Your task to perform on an android device: Go to location settings Image 0: 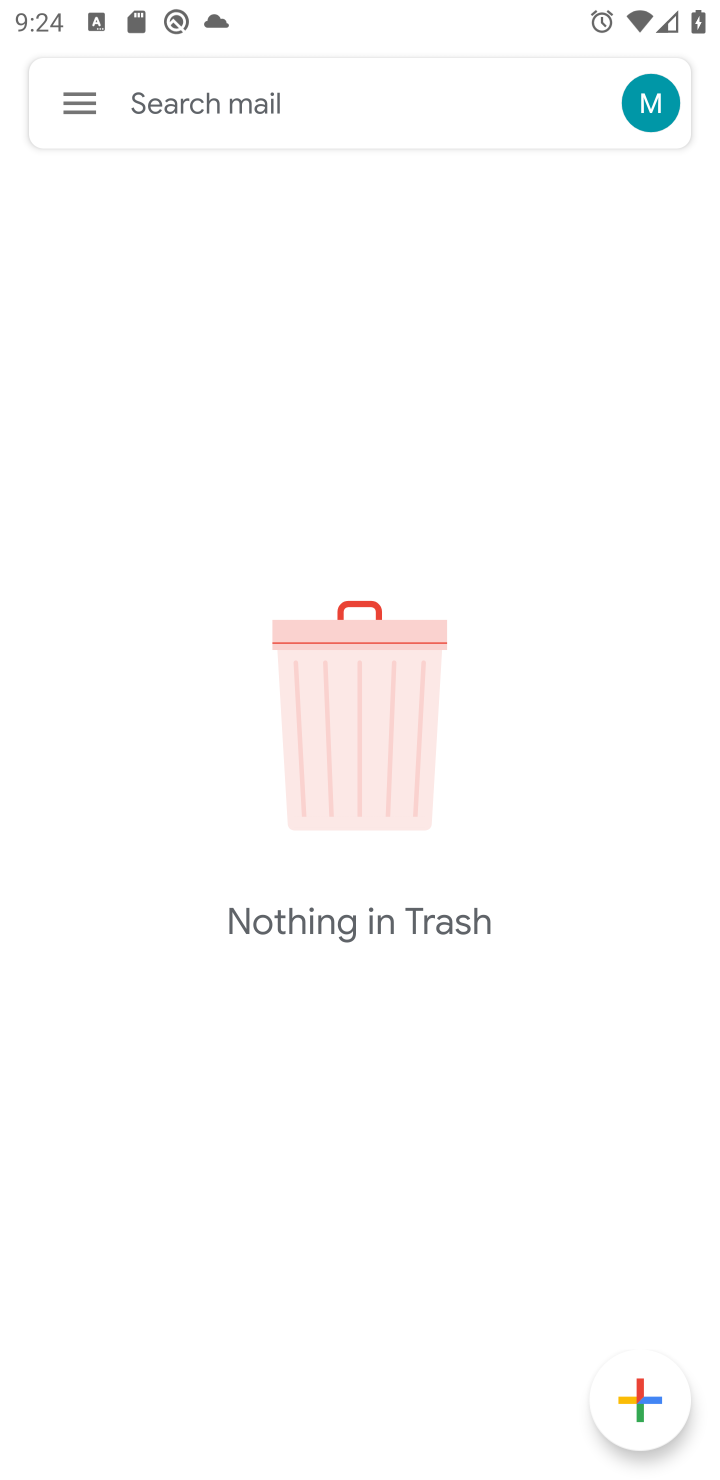
Step 0: press home button
Your task to perform on an android device: Go to location settings Image 1: 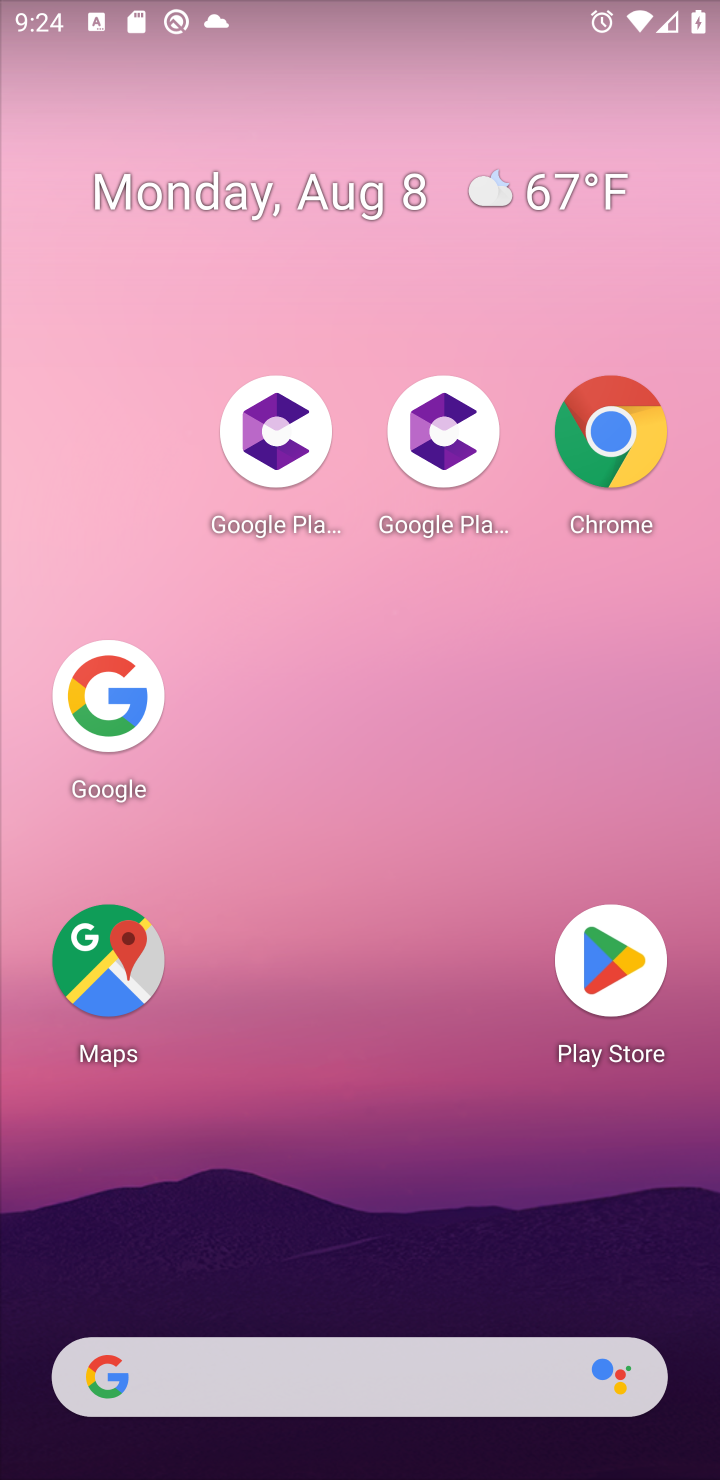
Step 1: drag from (311, 1062) to (285, 210)
Your task to perform on an android device: Go to location settings Image 2: 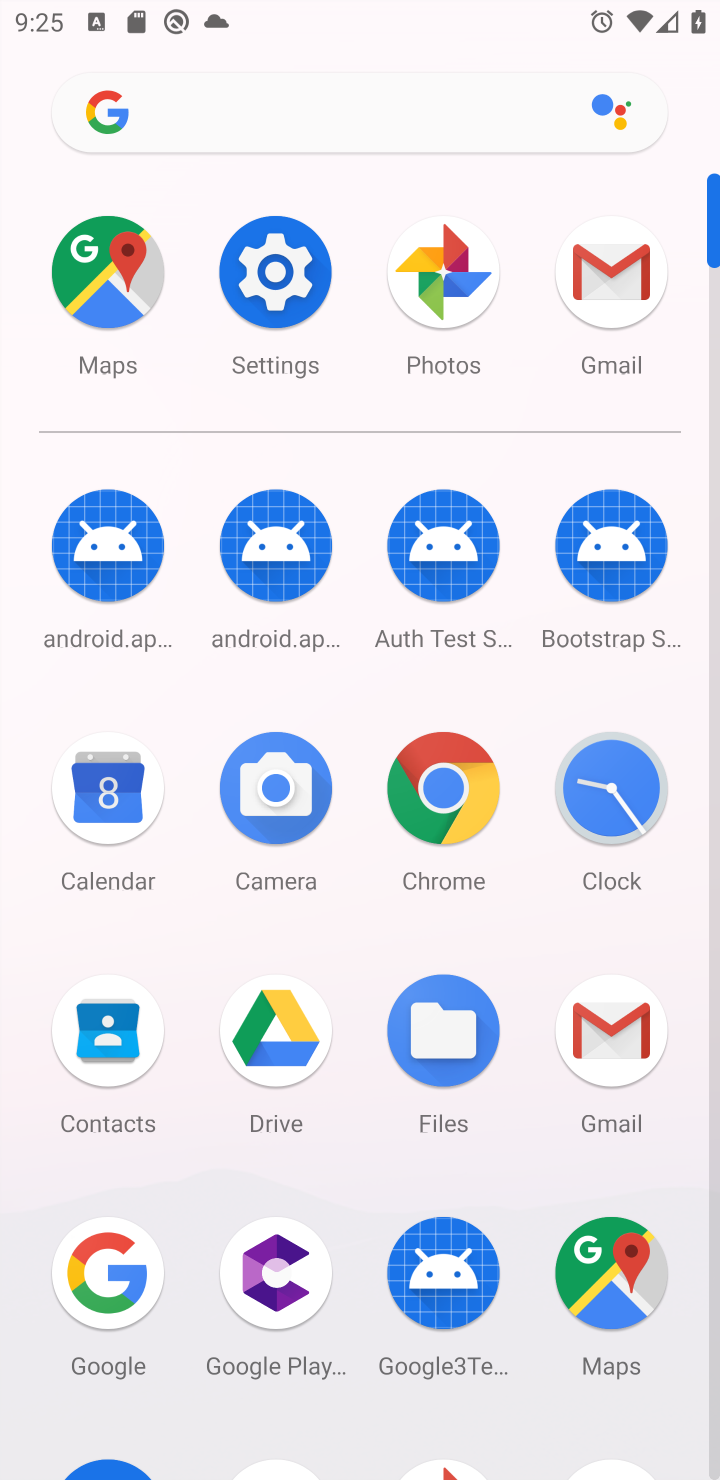
Step 2: click (293, 307)
Your task to perform on an android device: Go to location settings Image 3: 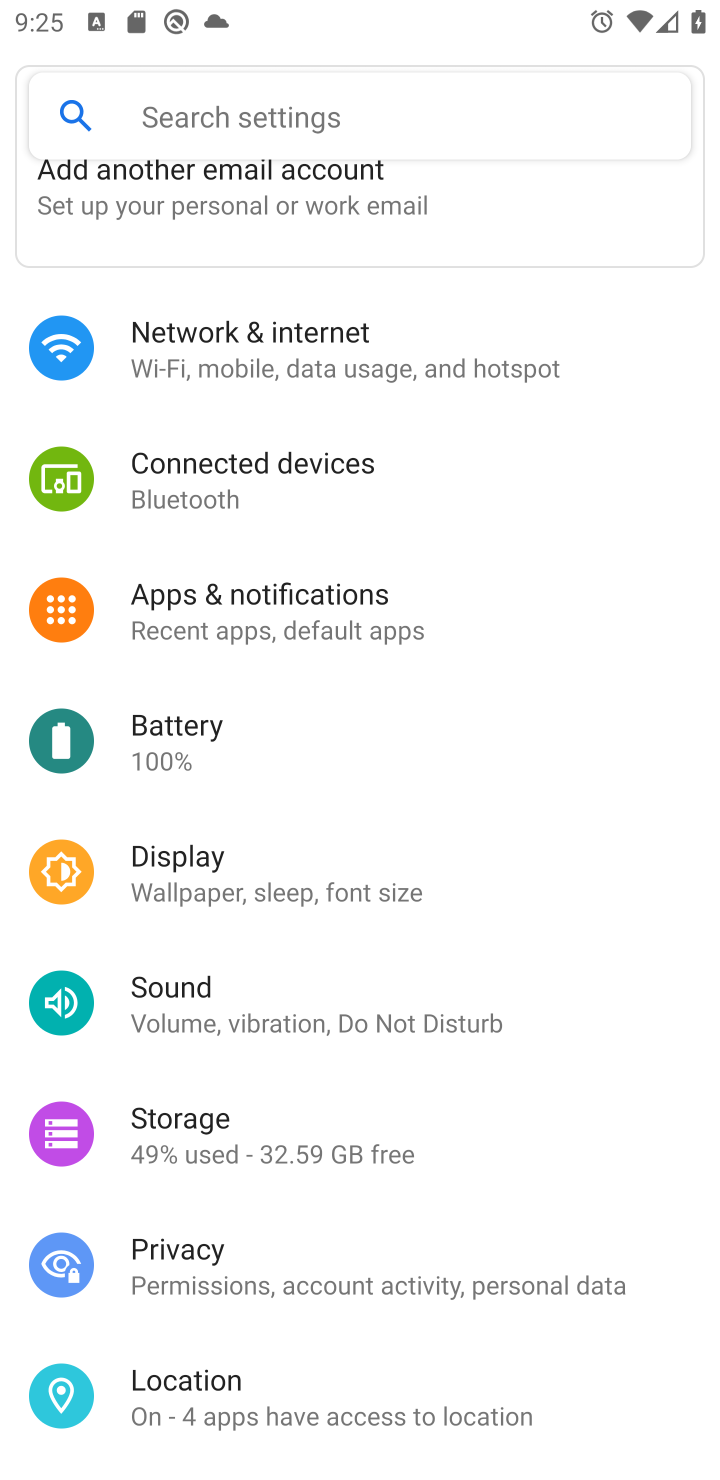
Step 3: click (186, 1411)
Your task to perform on an android device: Go to location settings Image 4: 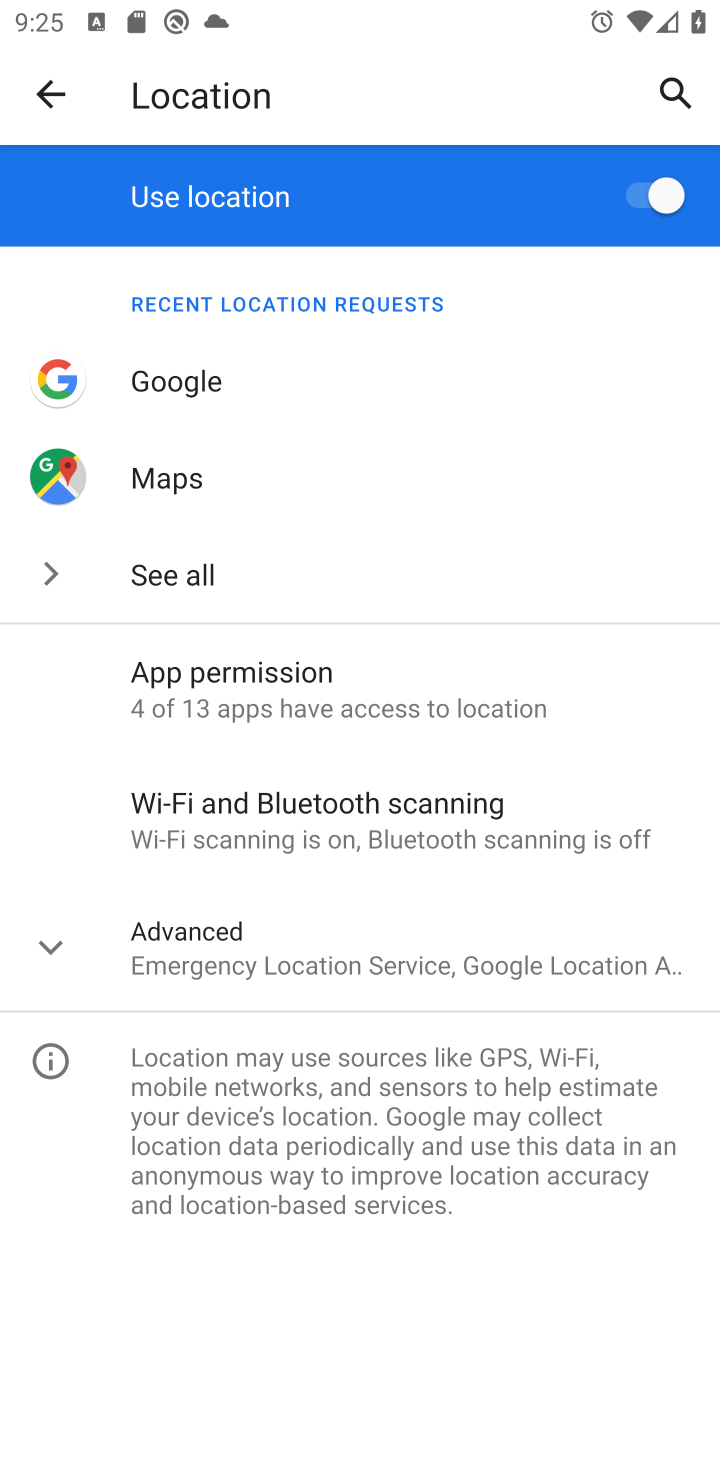
Step 4: task complete